Your task to perform on an android device: remove spam from my inbox in the gmail app Image 0: 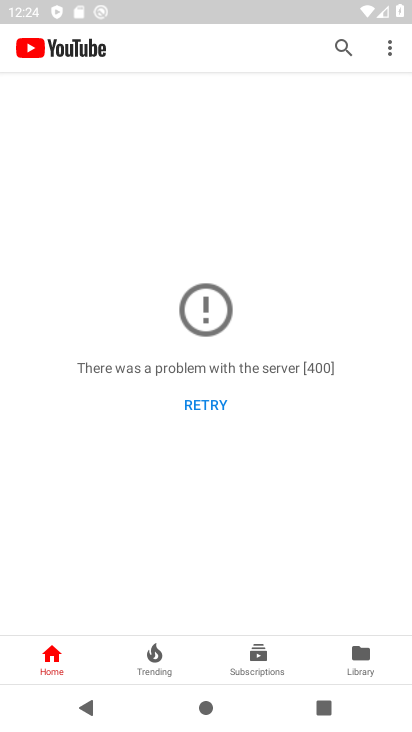
Step 0: press back button
Your task to perform on an android device: remove spam from my inbox in the gmail app Image 1: 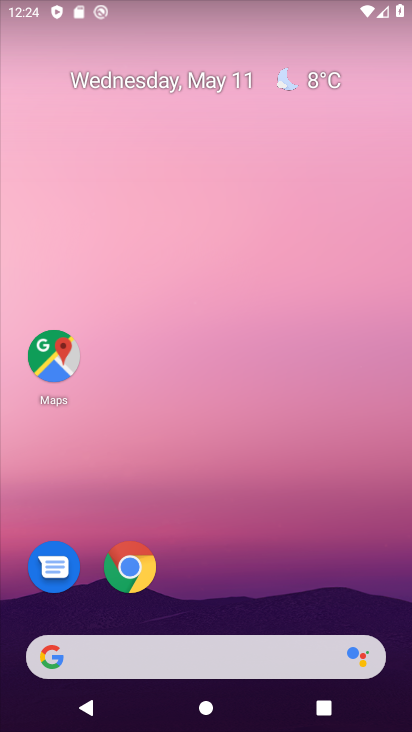
Step 1: drag from (389, 355) to (270, 405)
Your task to perform on an android device: remove spam from my inbox in the gmail app Image 2: 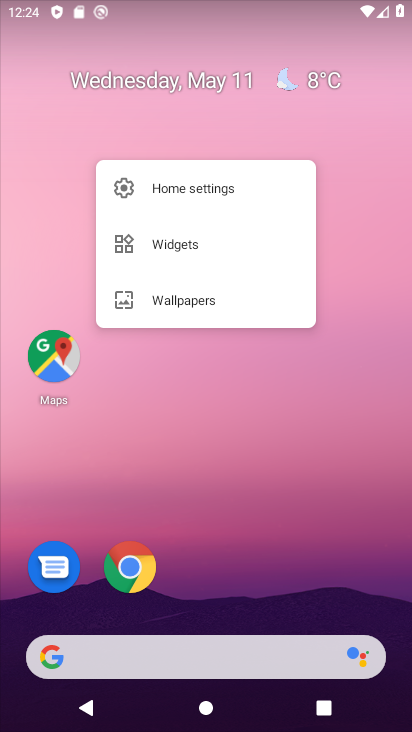
Step 2: drag from (214, 615) to (372, 103)
Your task to perform on an android device: remove spam from my inbox in the gmail app Image 3: 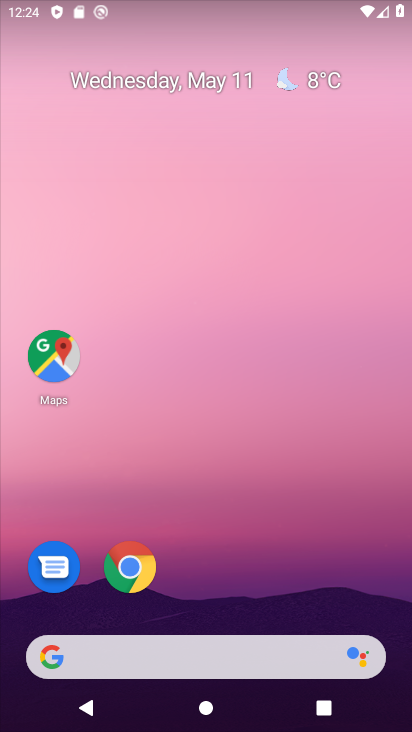
Step 3: drag from (255, 614) to (373, 154)
Your task to perform on an android device: remove spam from my inbox in the gmail app Image 4: 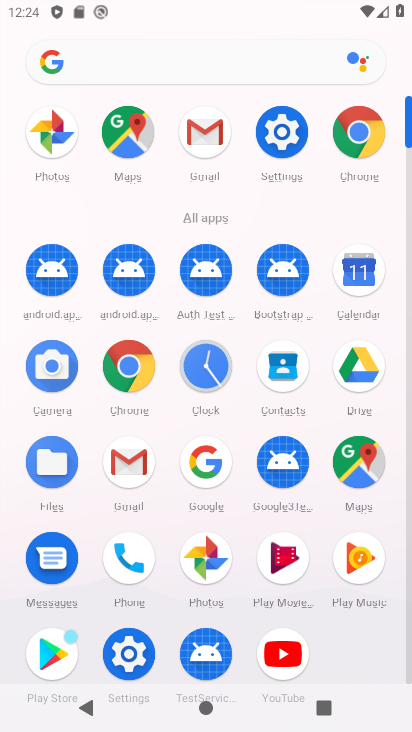
Step 4: click (136, 467)
Your task to perform on an android device: remove spam from my inbox in the gmail app Image 5: 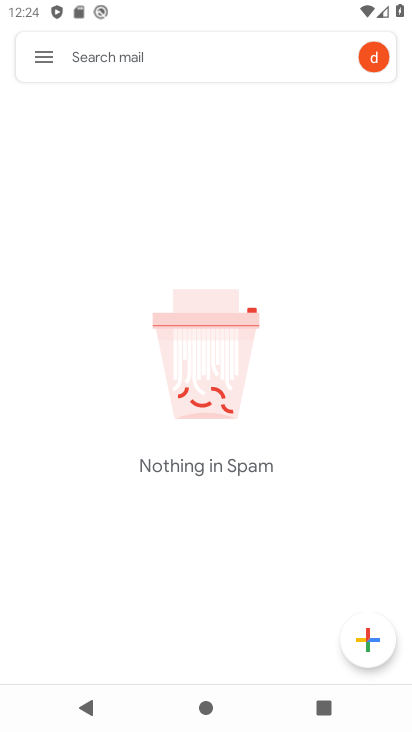
Step 5: click (47, 54)
Your task to perform on an android device: remove spam from my inbox in the gmail app Image 6: 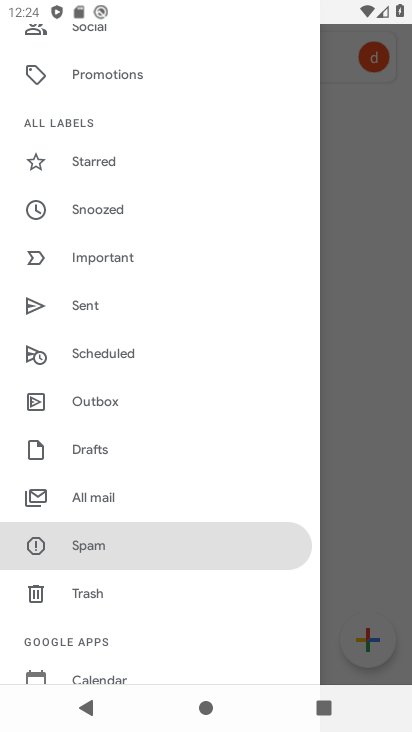
Step 6: click (130, 544)
Your task to perform on an android device: remove spam from my inbox in the gmail app Image 7: 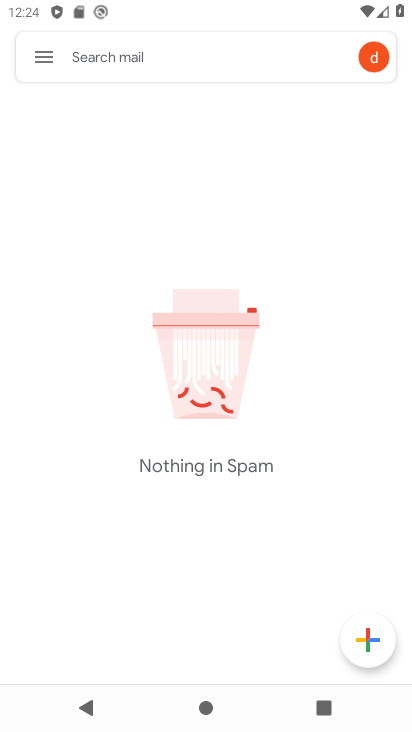
Step 7: task complete